Your task to perform on an android device: open sync settings in chrome Image 0: 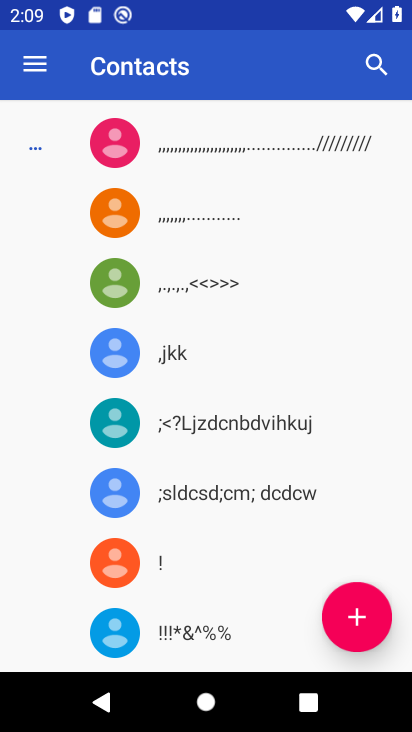
Step 0: press back button
Your task to perform on an android device: open sync settings in chrome Image 1: 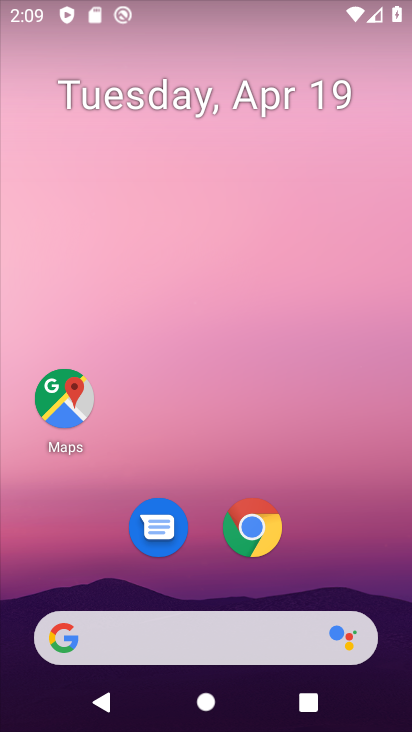
Step 1: click (258, 533)
Your task to perform on an android device: open sync settings in chrome Image 2: 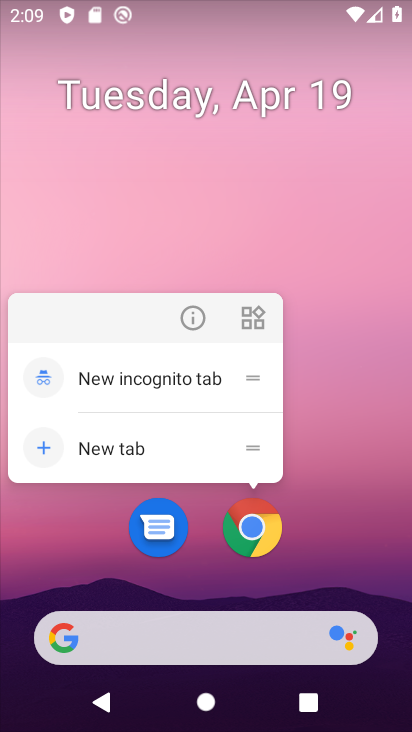
Step 2: click (258, 533)
Your task to perform on an android device: open sync settings in chrome Image 3: 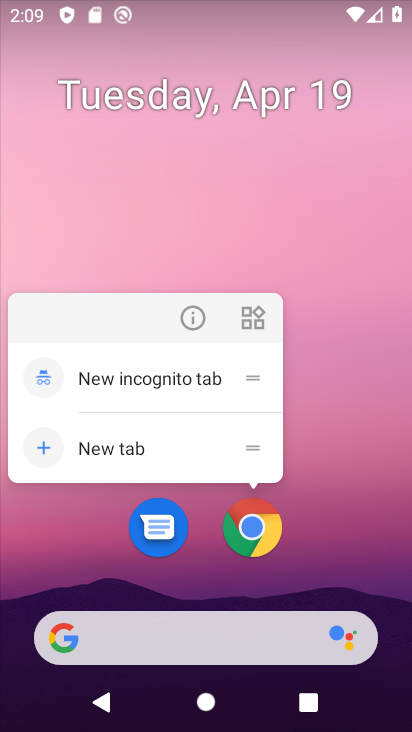
Step 3: click (258, 533)
Your task to perform on an android device: open sync settings in chrome Image 4: 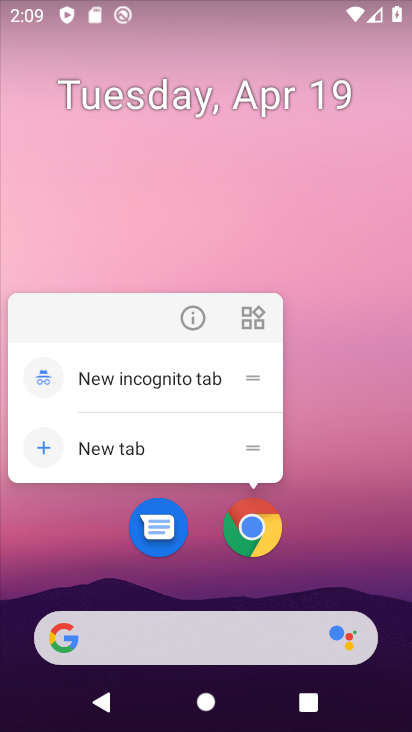
Step 4: click (258, 533)
Your task to perform on an android device: open sync settings in chrome Image 5: 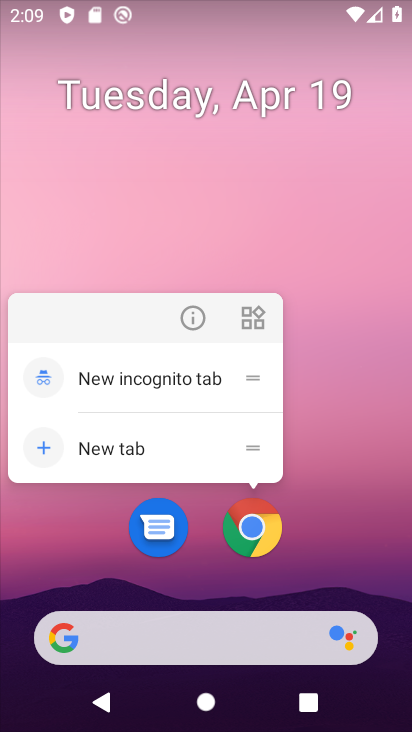
Step 5: click (249, 527)
Your task to perform on an android device: open sync settings in chrome Image 6: 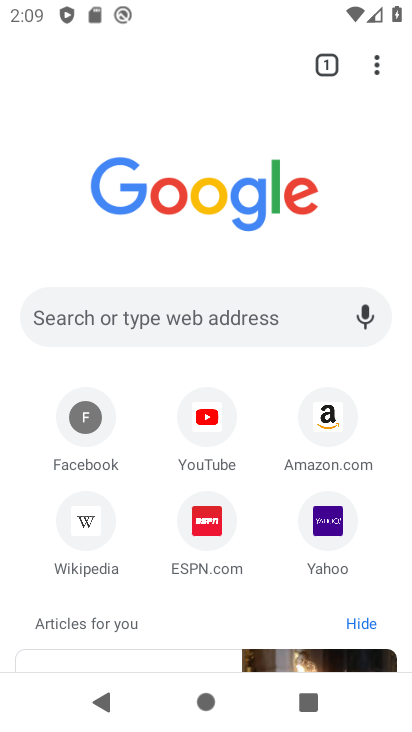
Step 6: click (378, 61)
Your task to perform on an android device: open sync settings in chrome Image 7: 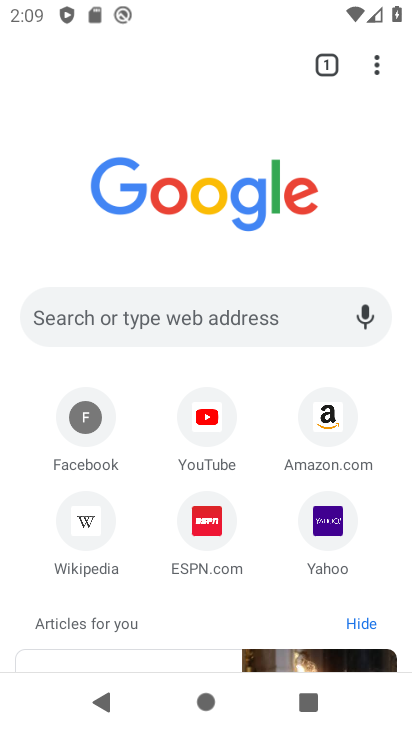
Step 7: click (378, 61)
Your task to perform on an android device: open sync settings in chrome Image 8: 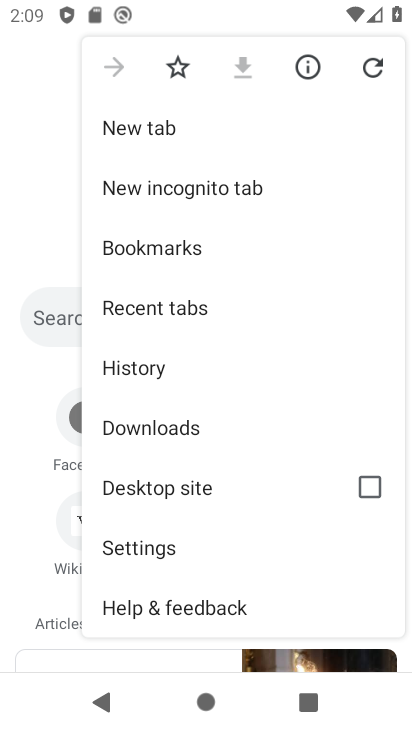
Step 8: click (149, 551)
Your task to perform on an android device: open sync settings in chrome Image 9: 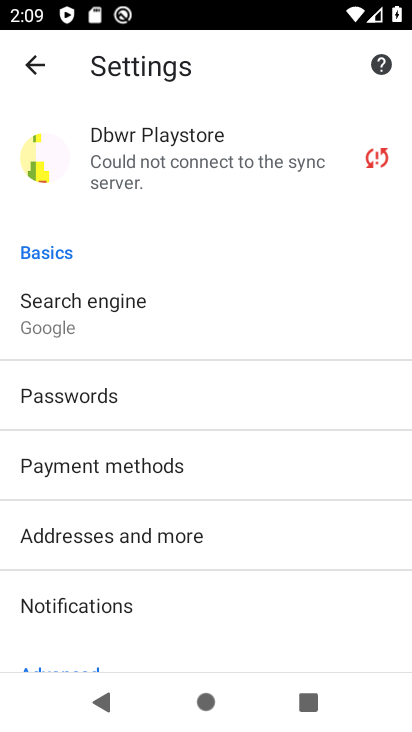
Step 9: click (164, 144)
Your task to perform on an android device: open sync settings in chrome Image 10: 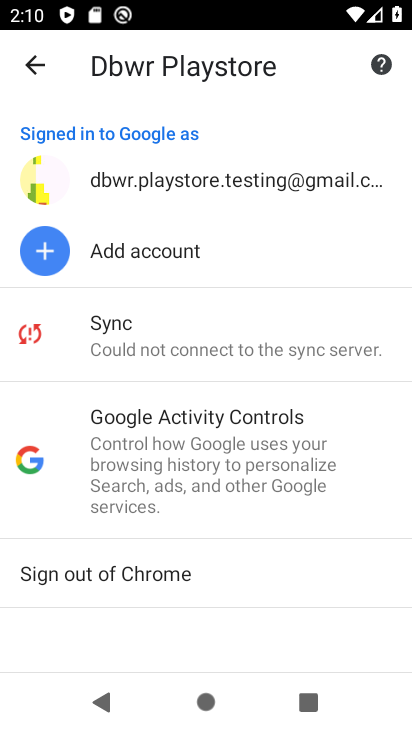
Step 10: click (139, 331)
Your task to perform on an android device: open sync settings in chrome Image 11: 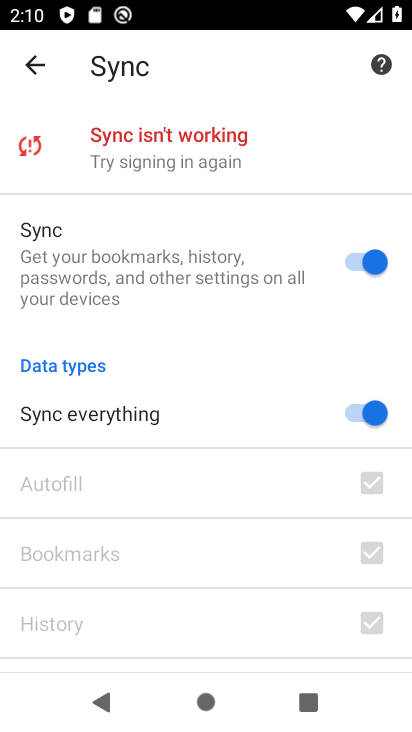
Step 11: task complete